Your task to perform on an android device: set the stopwatch Image 0: 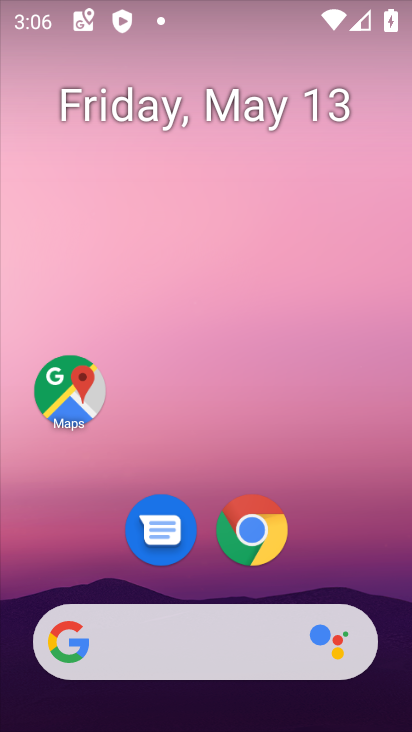
Step 0: drag from (377, 516) to (328, 62)
Your task to perform on an android device: set the stopwatch Image 1: 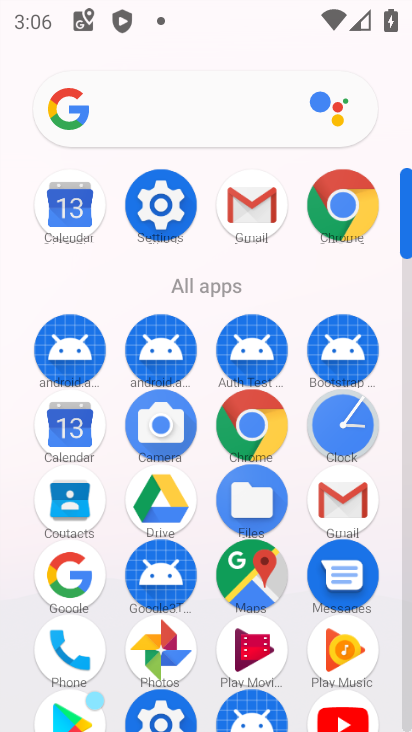
Step 1: click (335, 427)
Your task to perform on an android device: set the stopwatch Image 2: 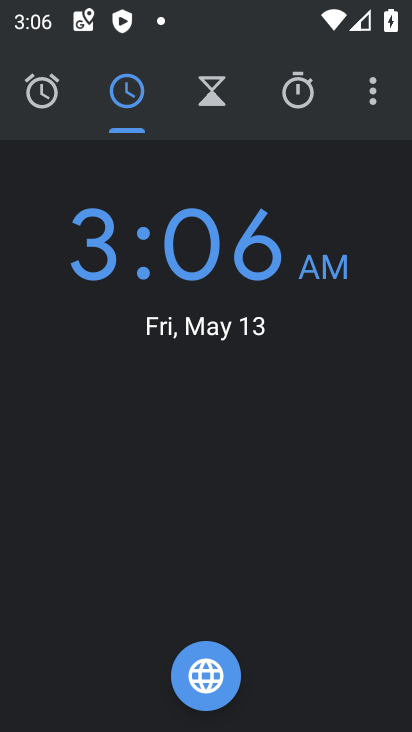
Step 2: click (287, 95)
Your task to perform on an android device: set the stopwatch Image 3: 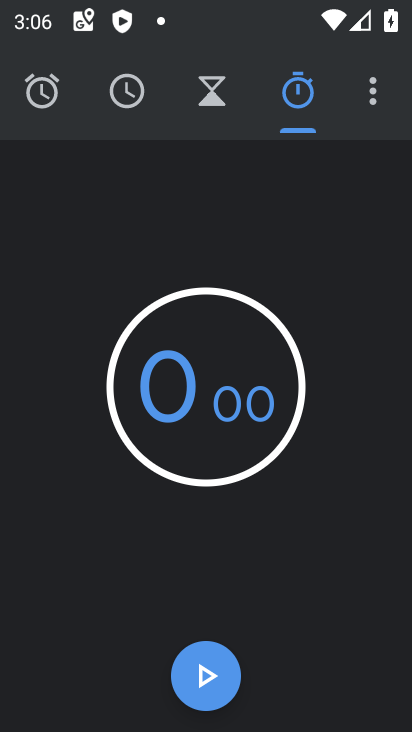
Step 3: click (197, 692)
Your task to perform on an android device: set the stopwatch Image 4: 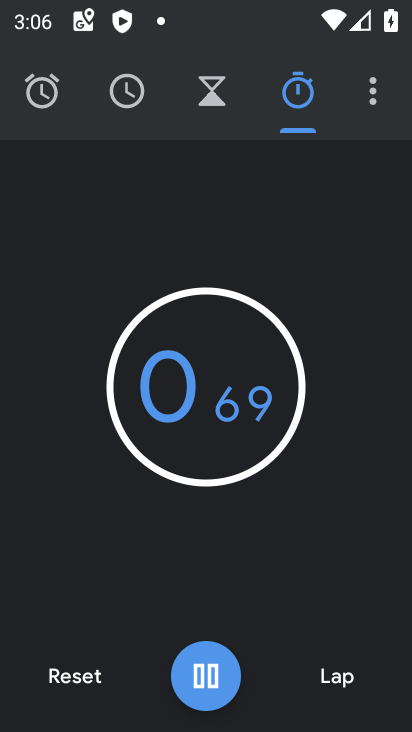
Step 4: click (211, 676)
Your task to perform on an android device: set the stopwatch Image 5: 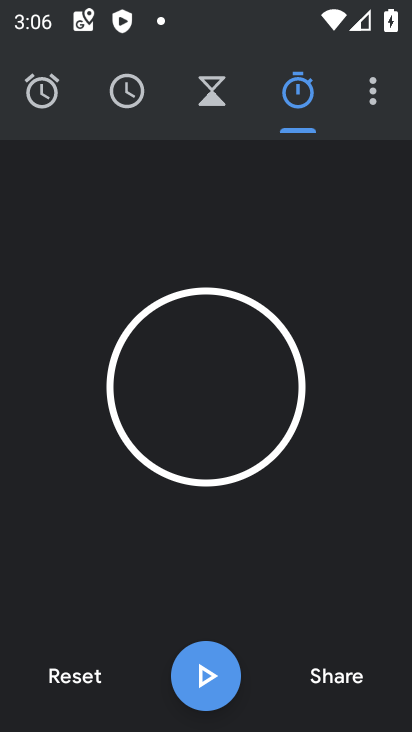
Step 5: task complete